Your task to perform on an android device: toggle javascript in the chrome app Image 0: 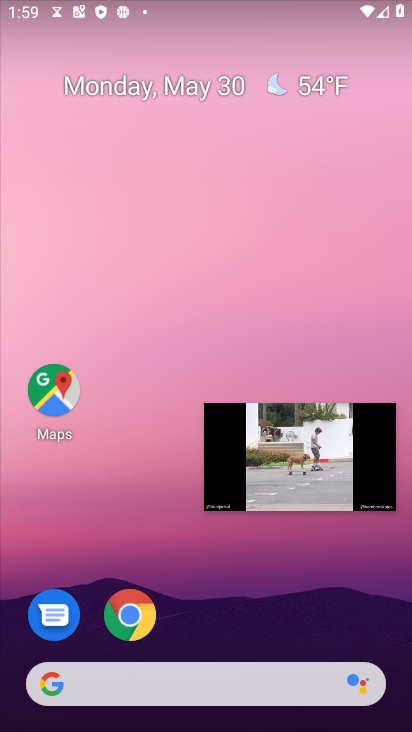
Step 0: click (382, 408)
Your task to perform on an android device: toggle javascript in the chrome app Image 1: 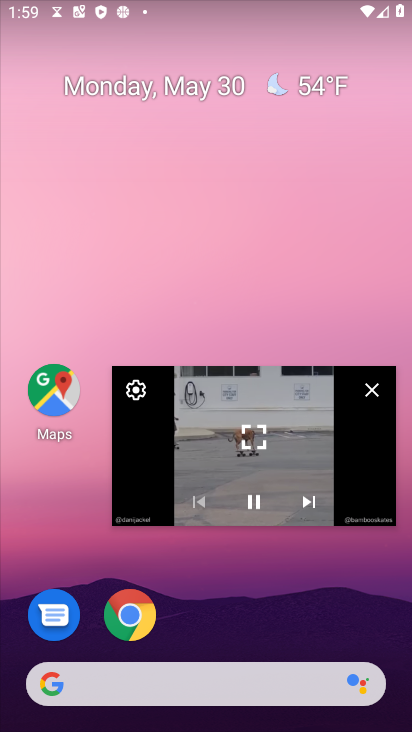
Step 1: click (366, 393)
Your task to perform on an android device: toggle javascript in the chrome app Image 2: 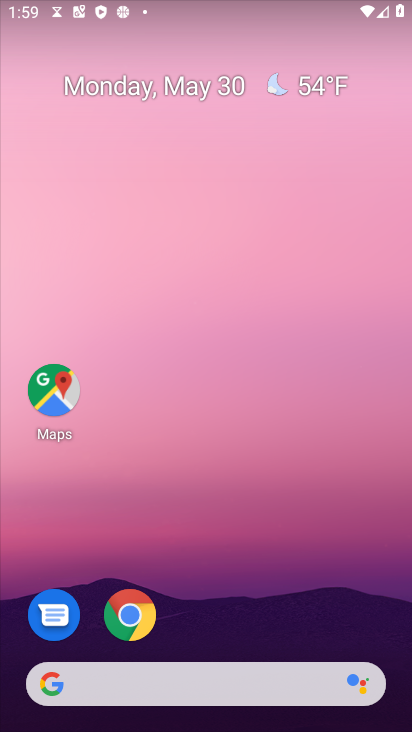
Step 2: drag from (300, 564) to (365, 183)
Your task to perform on an android device: toggle javascript in the chrome app Image 3: 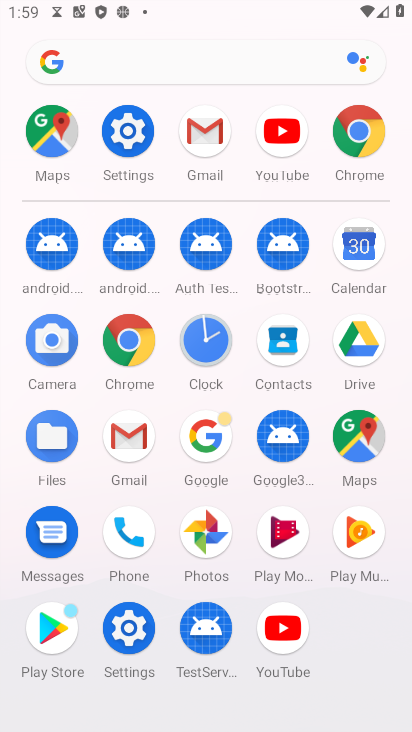
Step 3: click (354, 149)
Your task to perform on an android device: toggle javascript in the chrome app Image 4: 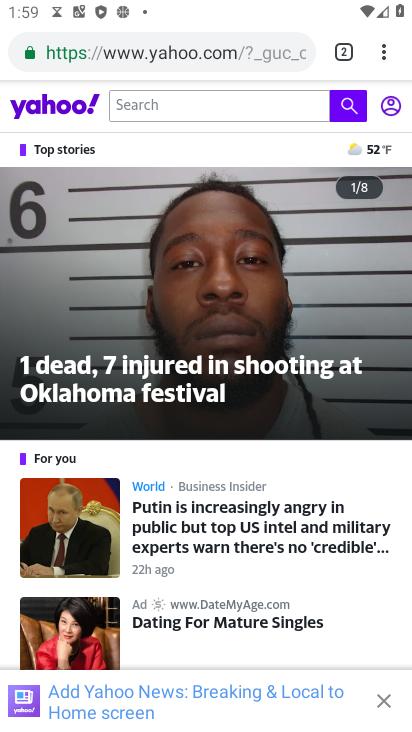
Step 4: drag from (382, 48) to (332, 651)
Your task to perform on an android device: toggle javascript in the chrome app Image 5: 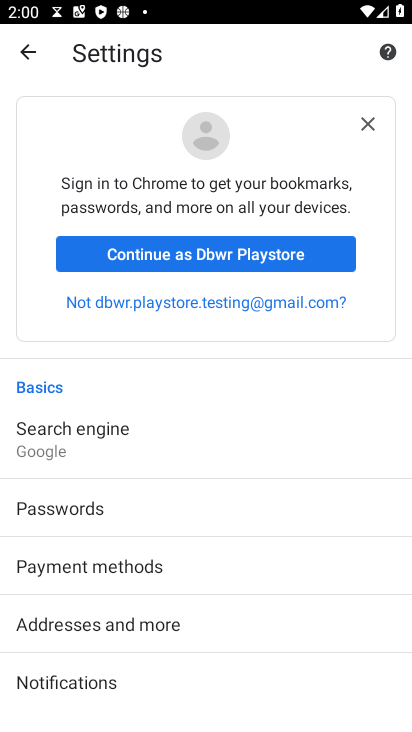
Step 5: drag from (124, 625) to (117, 241)
Your task to perform on an android device: toggle javascript in the chrome app Image 6: 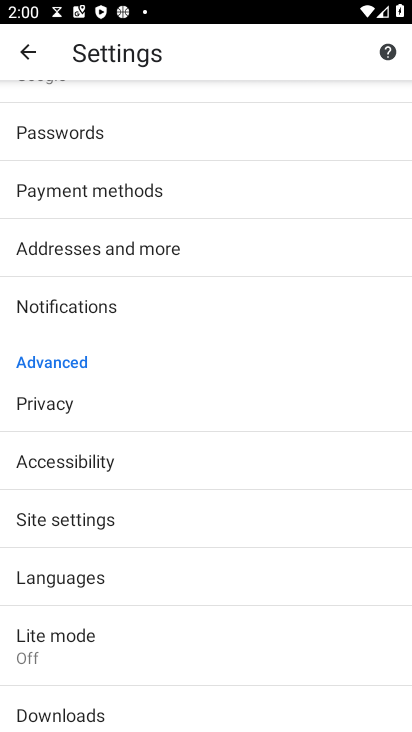
Step 6: click (63, 515)
Your task to perform on an android device: toggle javascript in the chrome app Image 7: 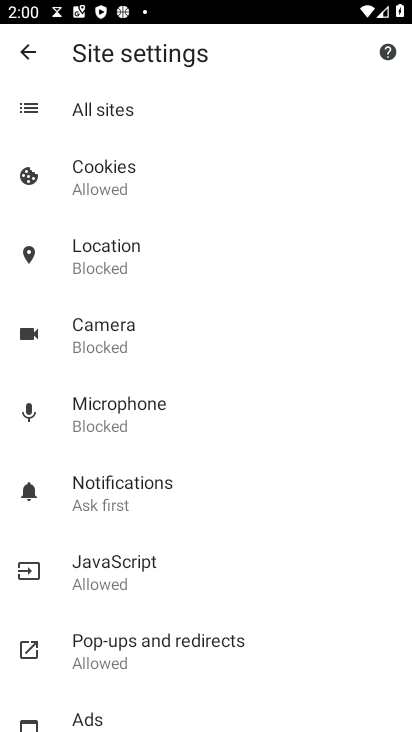
Step 7: click (153, 566)
Your task to perform on an android device: toggle javascript in the chrome app Image 8: 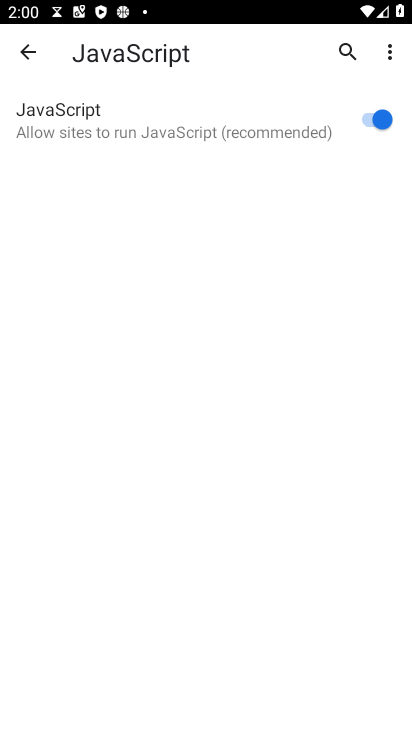
Step 8: click (370, 112)
Your task to perform on an android device: toggle javascript in the chrome app Image 9: 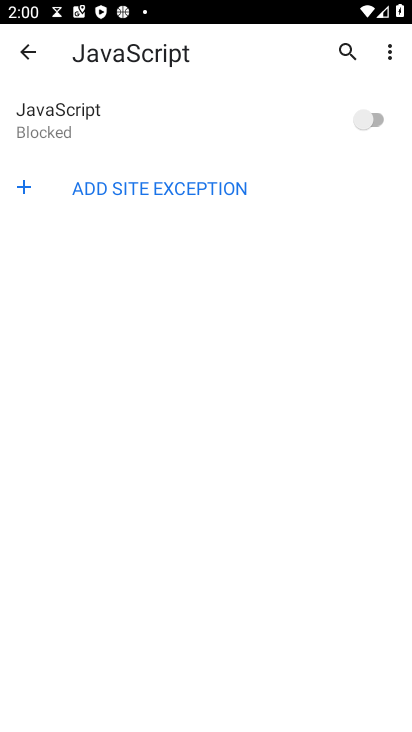
Step 9: task complete